Your task to perform on an android device: Clear the shopping cart on target.com. Image 0: 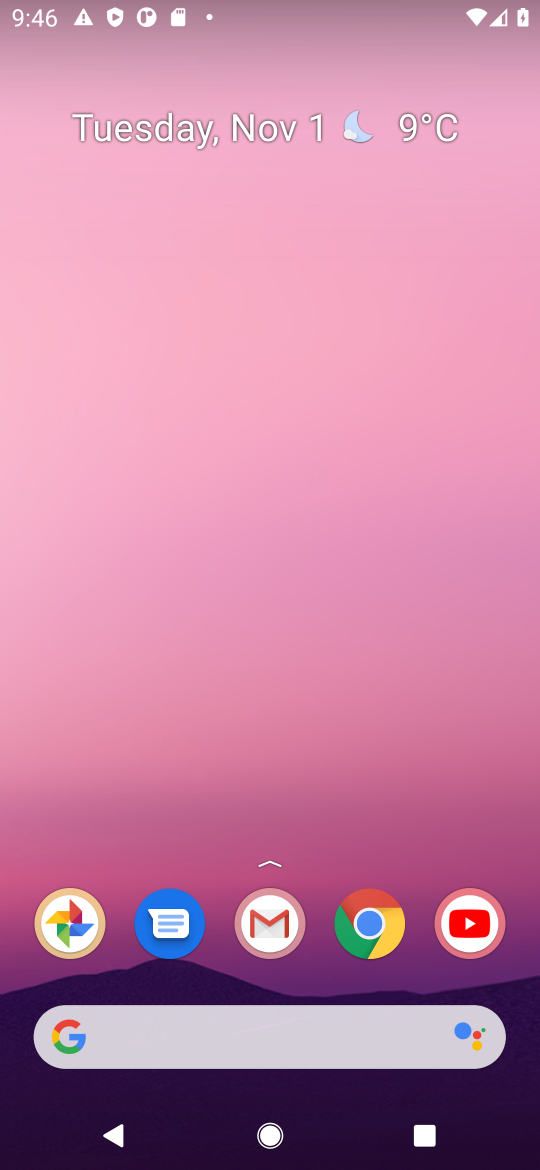
Step 0: drag from (326, 973) to (325, 185)
Your task to perform on an android device: Clear the shopping cart on target.com. Image 1: 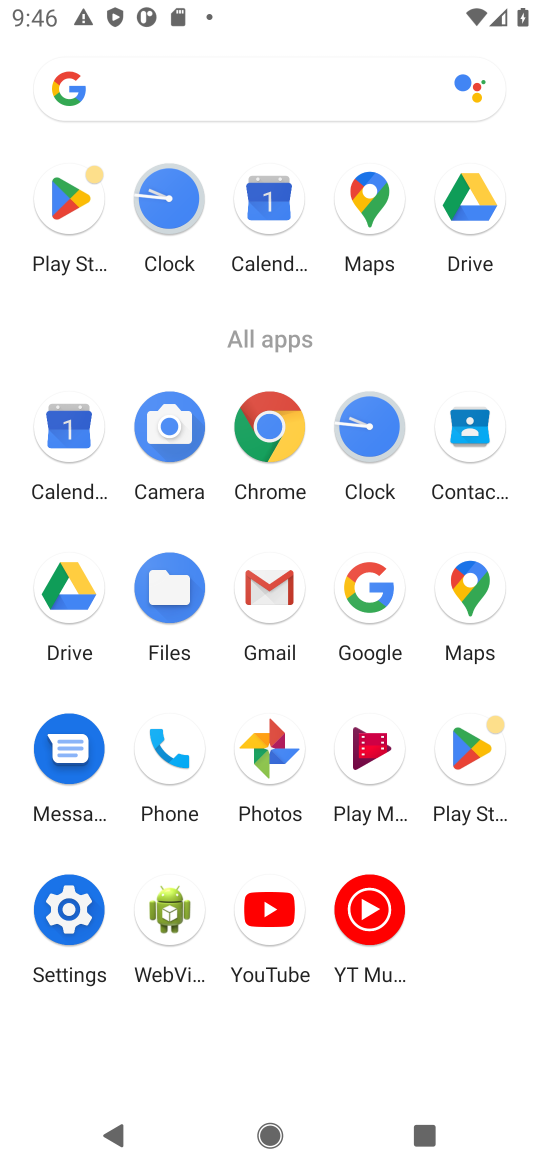
Step 1: click (267, 423)
Your task to perform on an android device: Clear the shopping cart on target.com. Image 2: 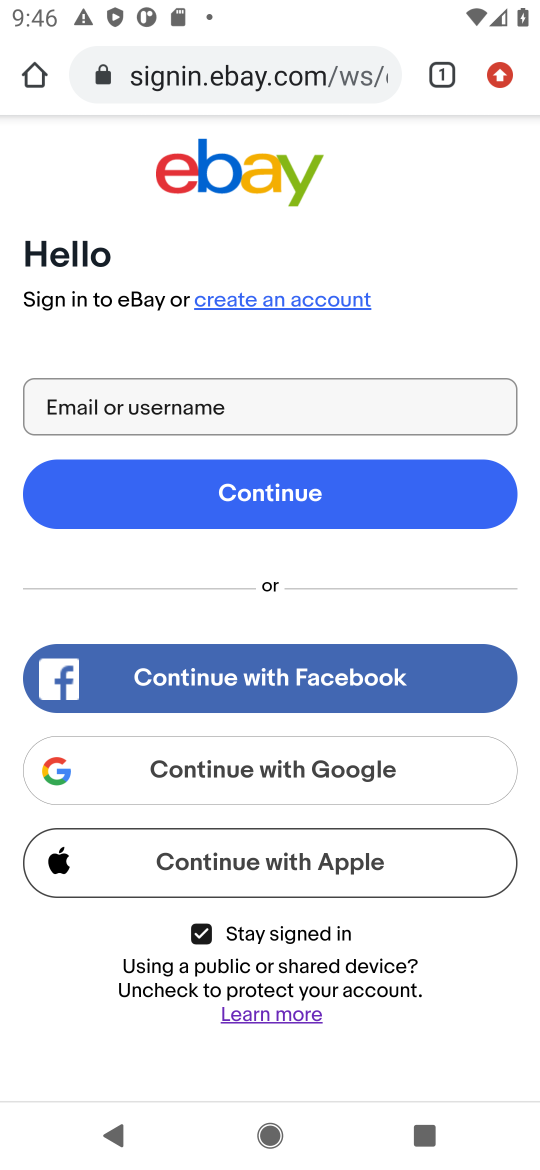
Step 2: click (291, 85)
Your task to perform on an android device: Clear the shopping cart on target.com. Image 3: 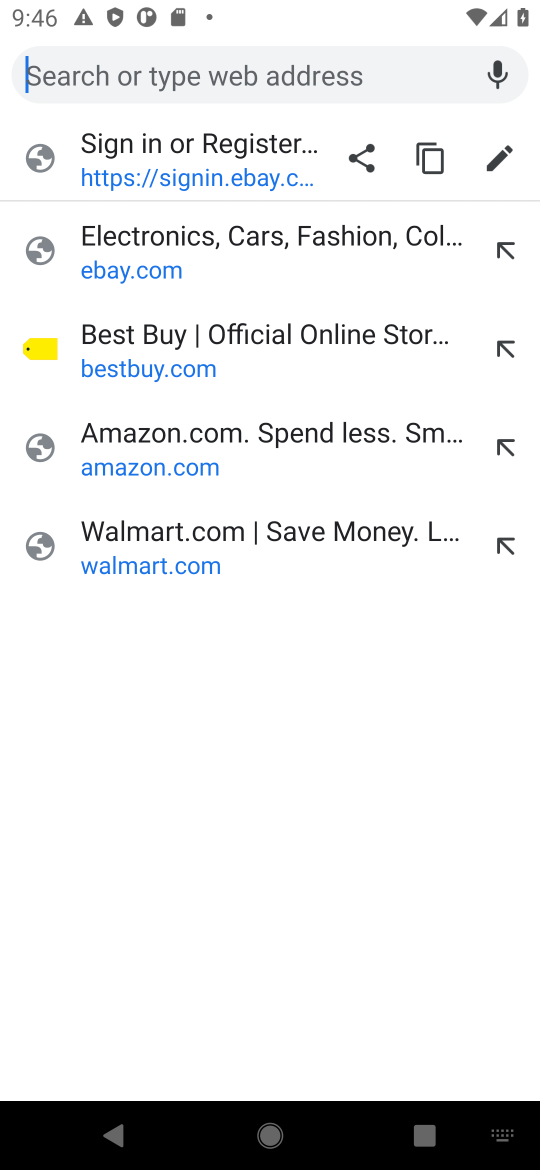
Step 3: type "target.com"
Your task to perform on an android device: Clear the shopping cart on target.com. Image 4: 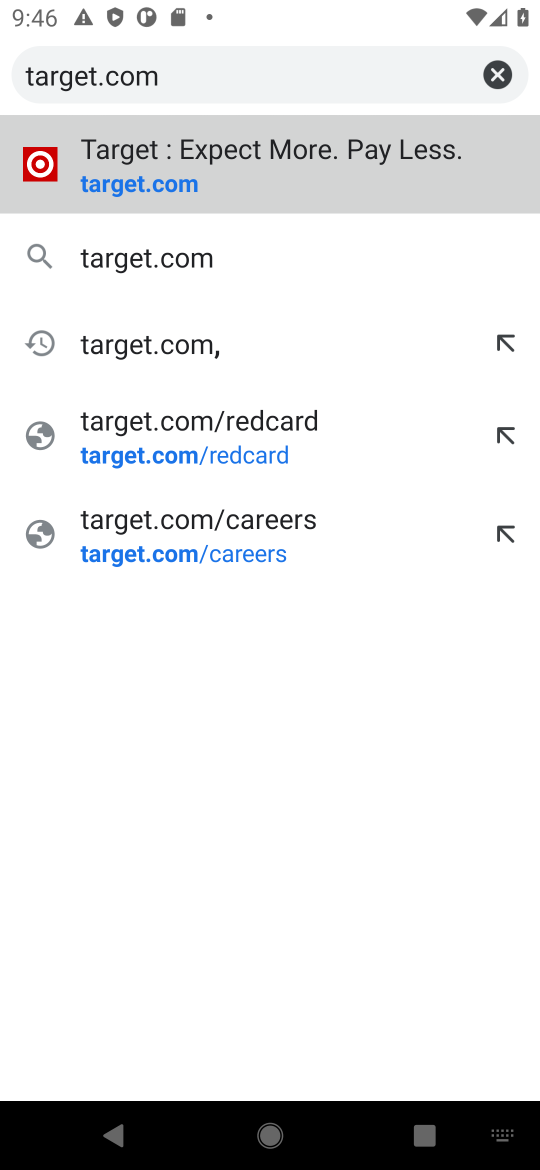
Step 4: press enter
Your task to perform on an android device: Clear the shopping cart on target.com. Image 5: 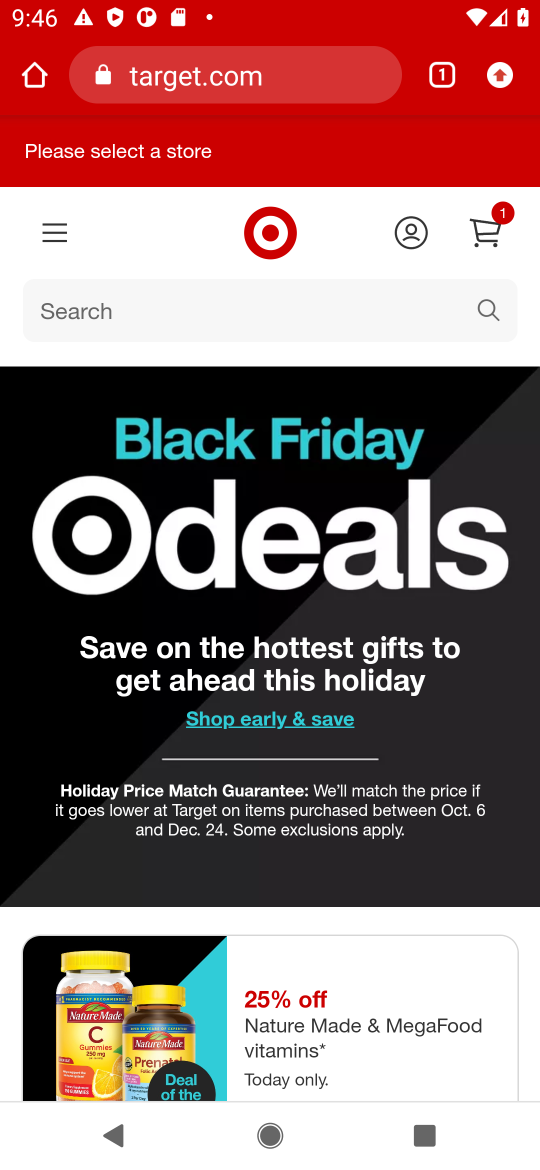
Step 5: click (484, 231)
Your task to perform on an android device: Clear the shopping cart on target.com. Image 6: 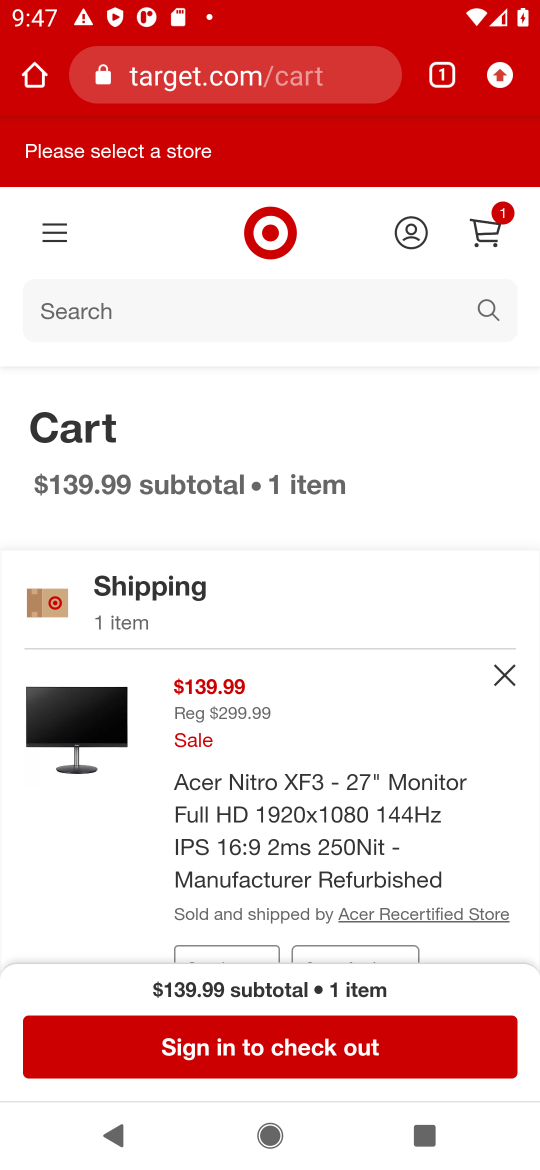
Step 6: drag from (341, 840) to (287, 489)
Your task to perform on an android device: Clear the shopping cart on target.com. Image 7: 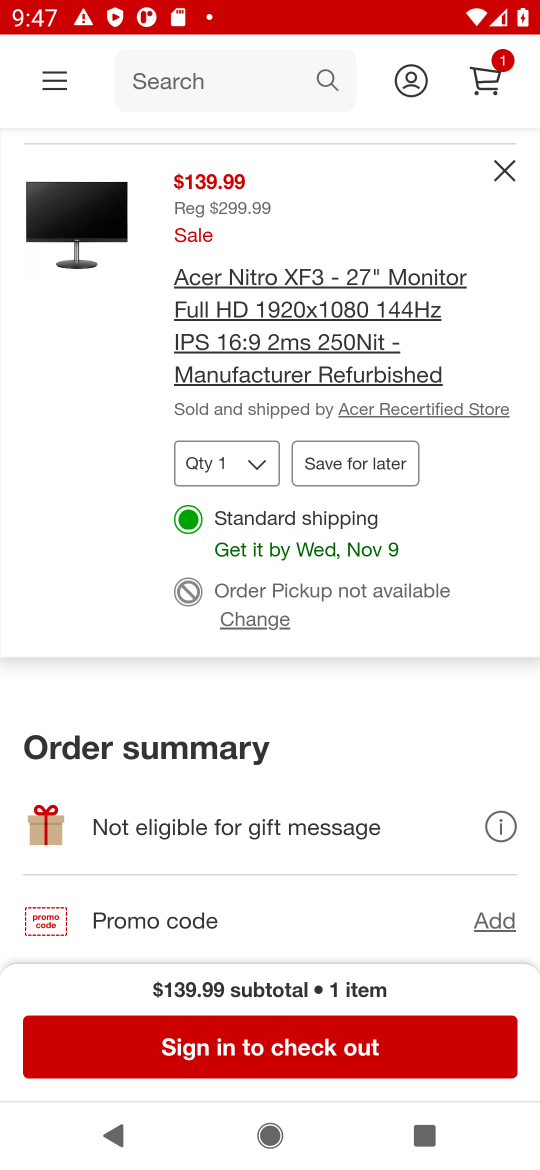
Step 7: drag from (336, 806) to (350, 246)
Your task to perform on an android device: Clear the shopping cart on target.com. Image 8: 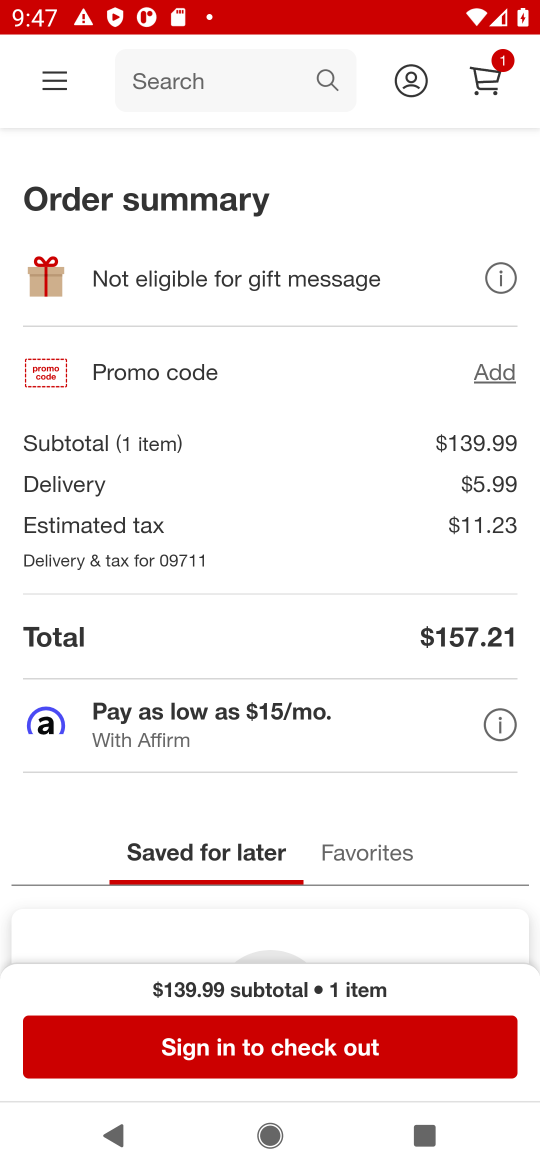
Step 8: drag from (318, 830) to (275, 1073)
Your task to perform on an android device: Clear the shopping cart on target.com. Image 9: 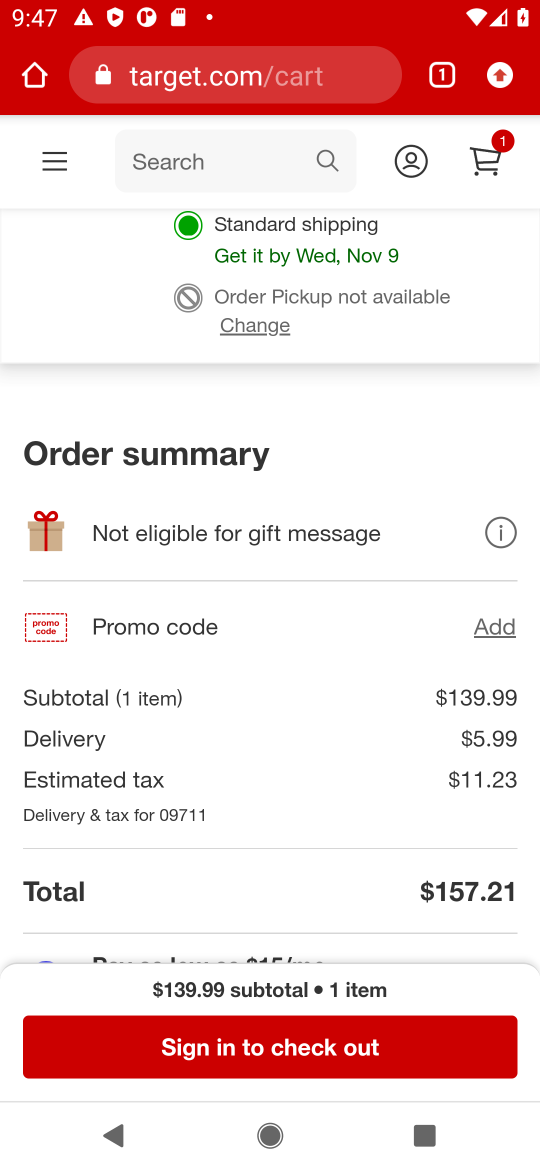
Step 9: drag from (303, 496) to (314, 854)
Your task to perform on an android device: Clear the shopping cart on target.com. Image 10: 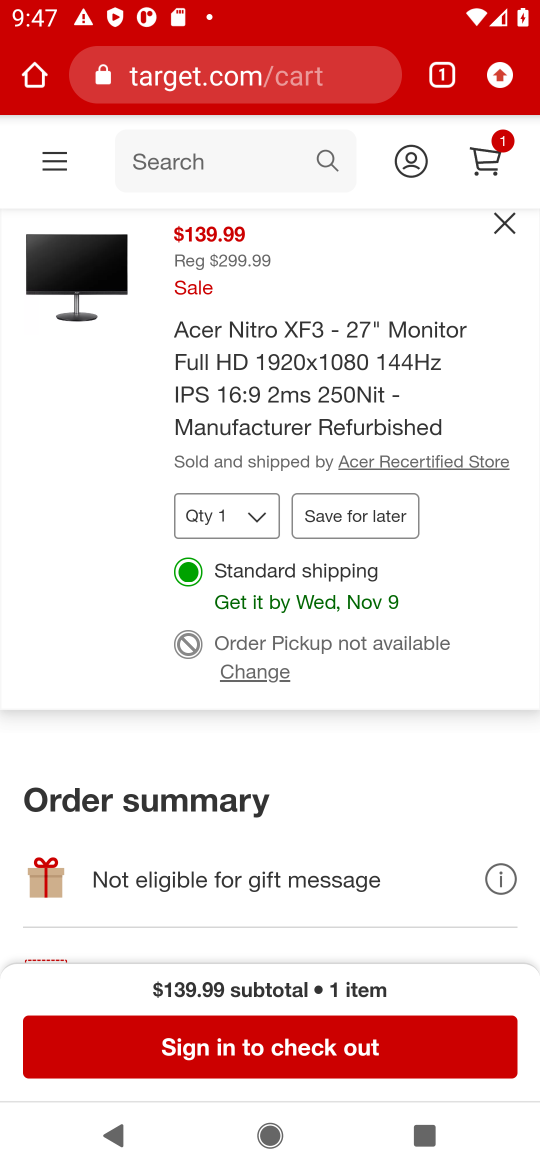
Step 10: drag from (397, 550) to (340, 954)
Your task to perform on an android device: Clear the shopping cart on target.com. Image 11: 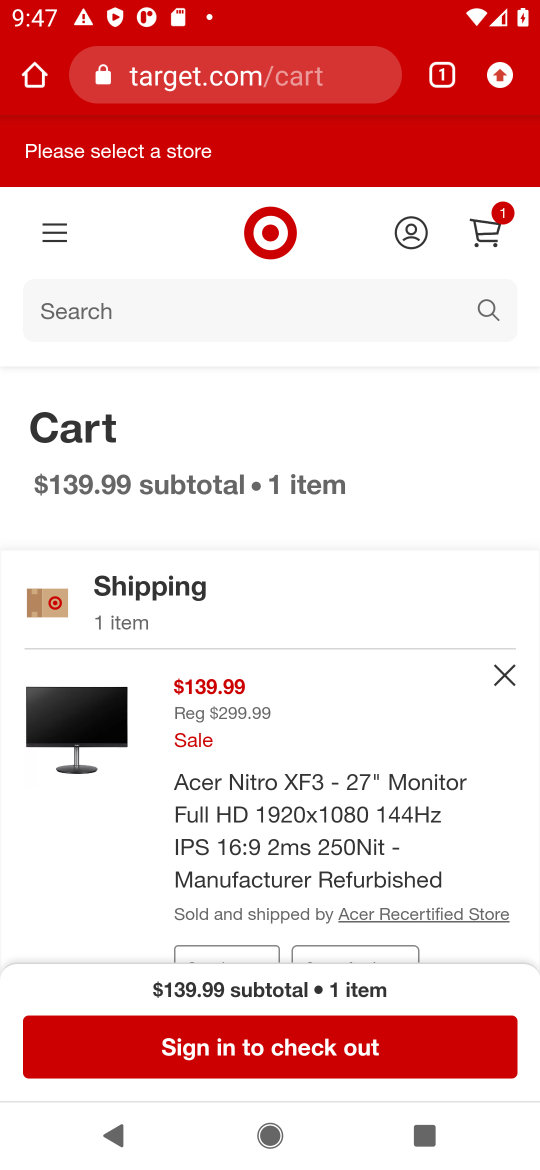
Step 11: drag from (370, 746) to (378, 501)
Your task to perform on an android device: Clear the shopping cart on target.com. Image 12: 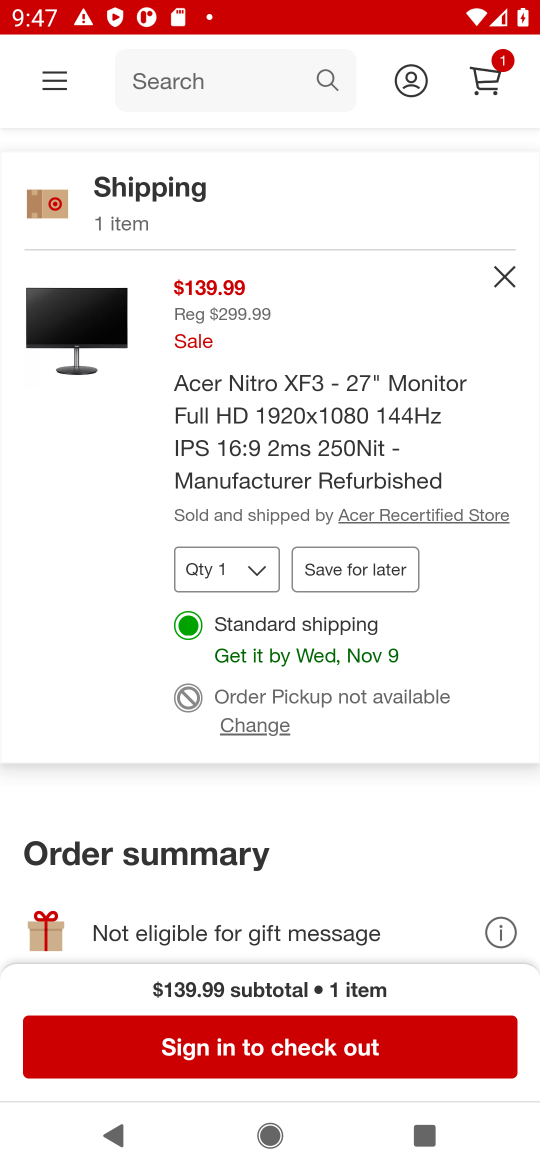
Step 12: drag from (213, 435) to (280, 536)
Your task to perform on an android device: Clear the shopping cart on target.com. Image 13: 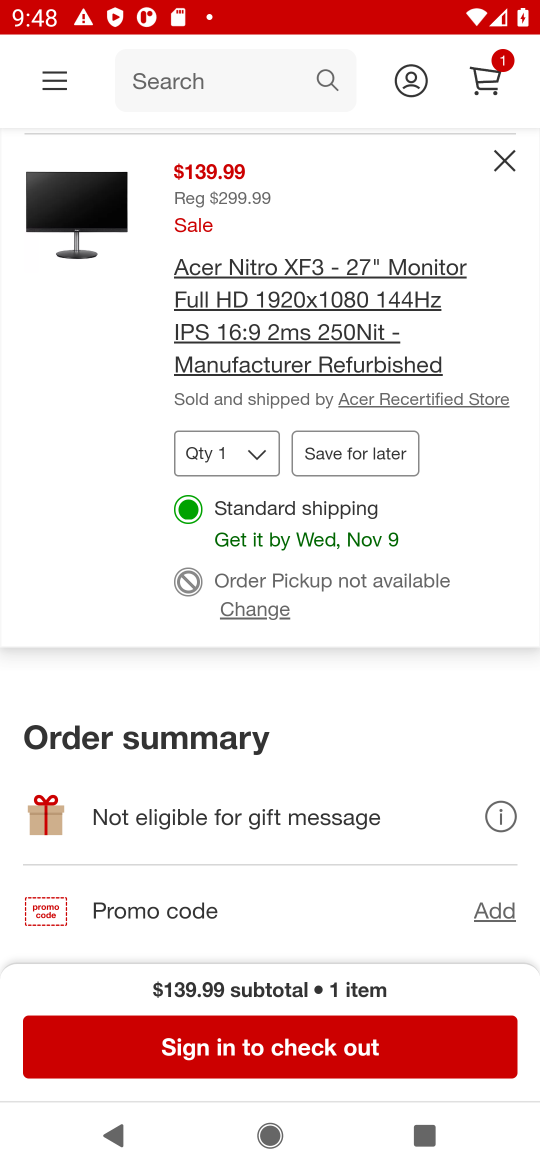
Step 13: drag from (70, 596) to (270, 251)
Your task to perform on an android device: Clear the shopping cart on target.com. Image 14: 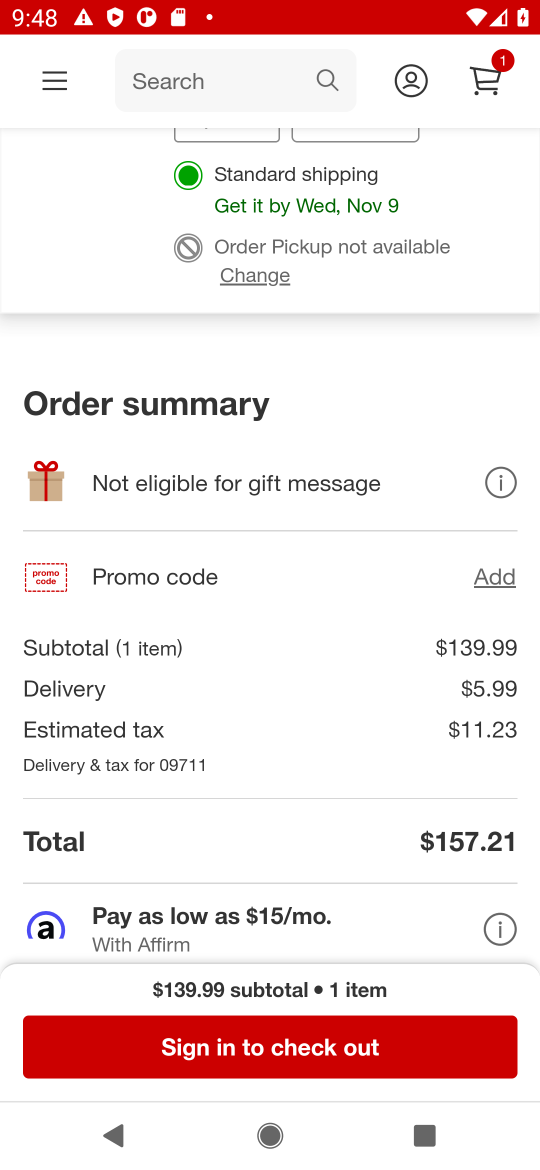
Step 14: drag from (351, 766) to (322, 977)
Your task to perform on an android device: Clear the shopping cart on target.com. Image 15: 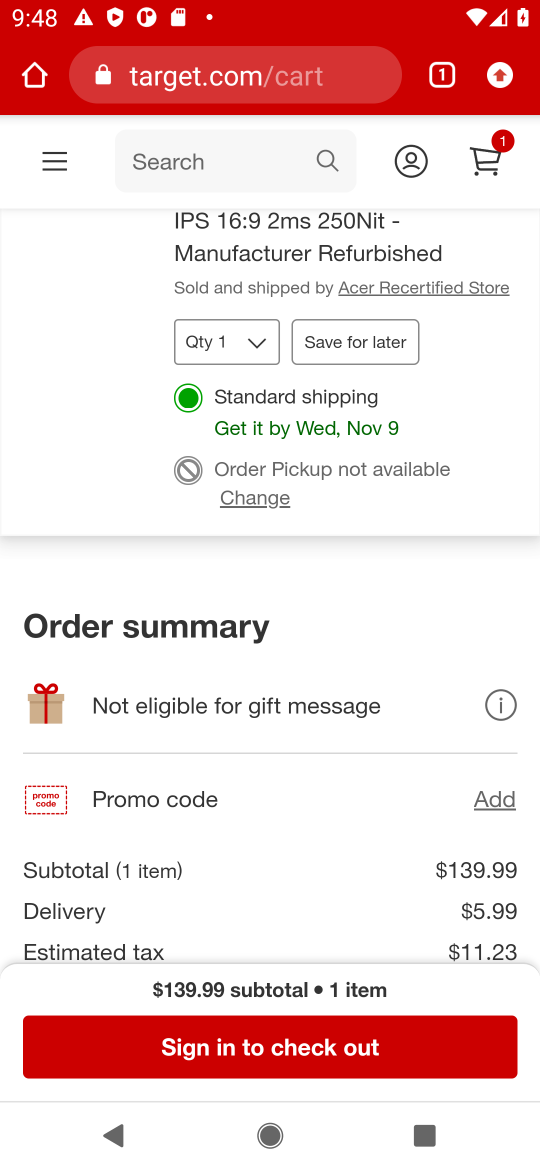
Step 15: drag from (129, 375) to (299, 874)
Your task to perform on an android device: Clear the shopping cart on target.com. Image 16: 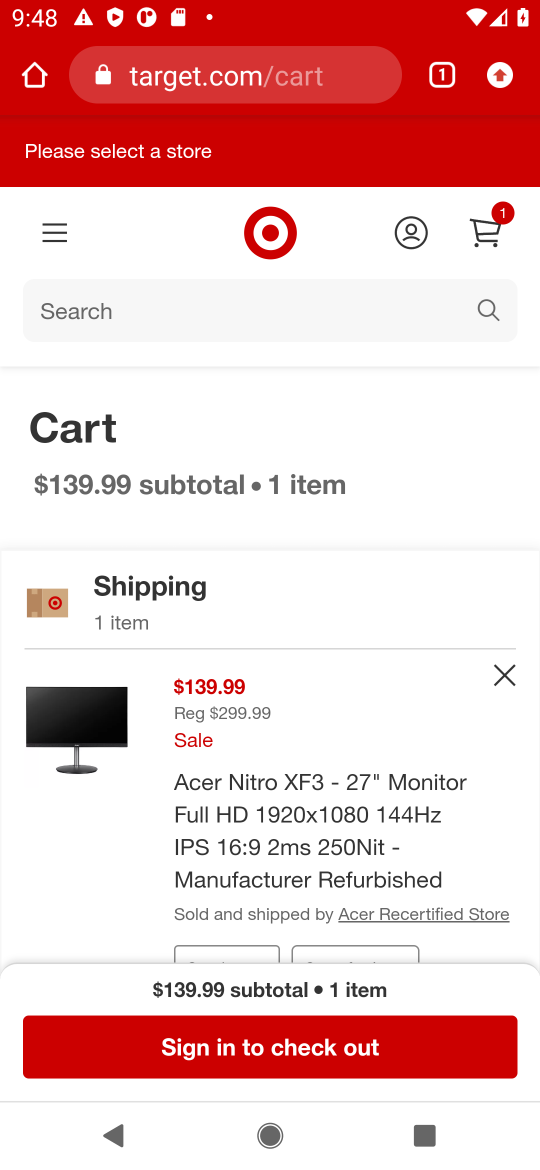
Step 16: click (511, 671)
Your task to perform on an android device: Clear the shopping cart on target.com. Image 17: 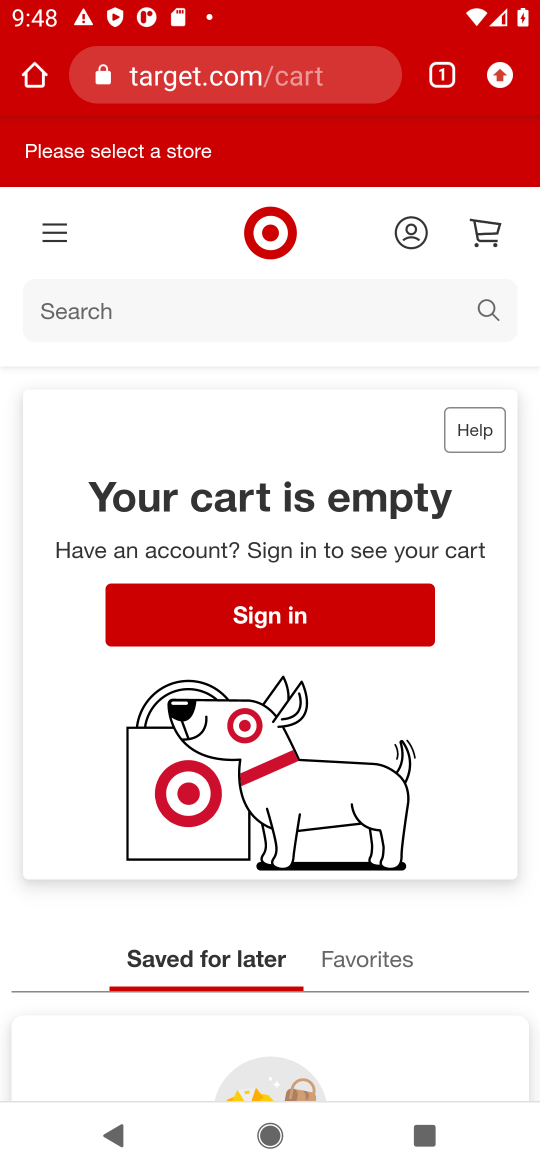
Step 17: task complete